Your task to perform on an android device: toggle pop-ups in chrome Image 0: 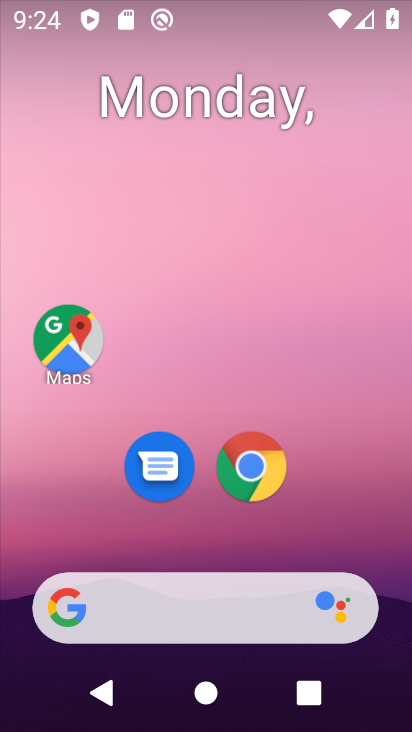
Step 0: click (258, 456)
Your task to perform on an android device: toggle pop-ups in chrome Image 1: 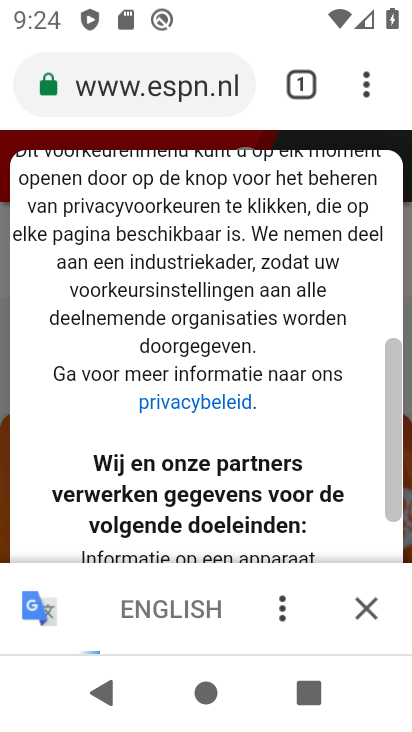
Step 1: click (360, 600)
Your task to perform on an android device: toggle pop-ups in chrome Image 2: 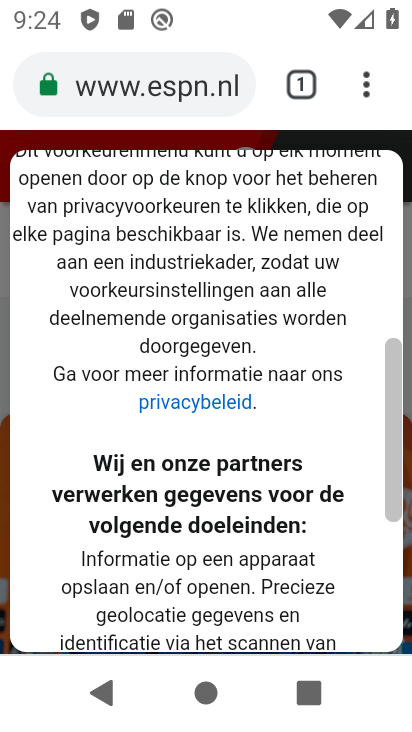
Step 2: drag from (358, 83) to (137, 514)
Your task to perform on an android device: toggle pop-ups in chrome Image 3: 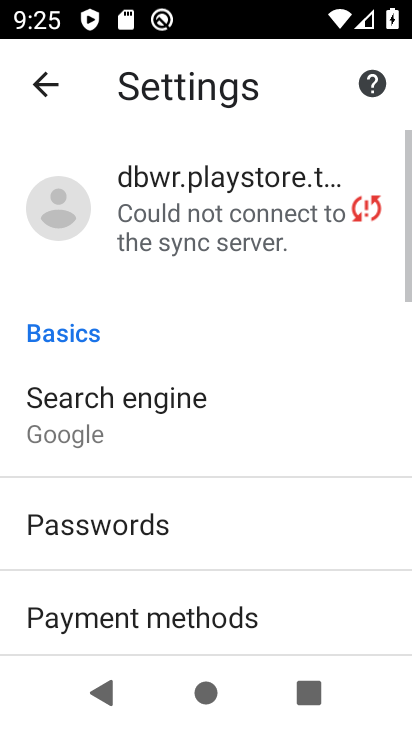
Step 3: drag from (274, 540) to (265, 220)
Your task to perform on an android device: toggle pop-ups in chrome Image 4: 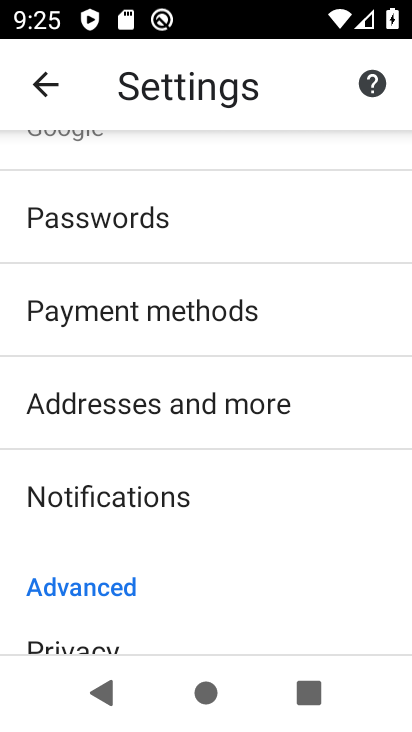
Step 4: drag from (302, 560) to (309, 326)
Your task to perform on an android device: toggle pop-ups in chrome Image 5: 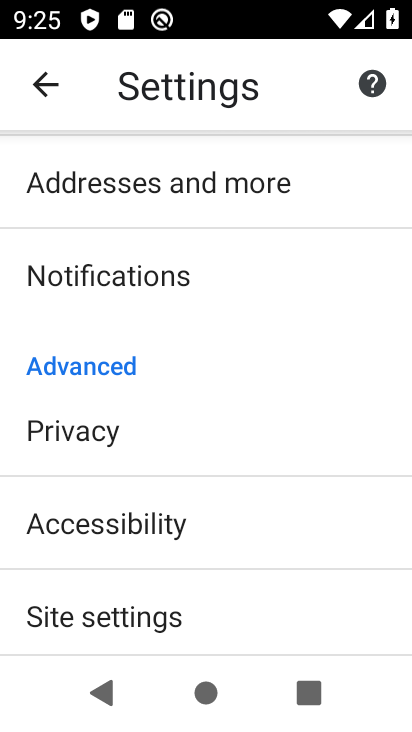
Step 5: drag from (234, 591) to (242, 395)
Your task to perform on an android device: toggle pop-ups in chrome Image 6: 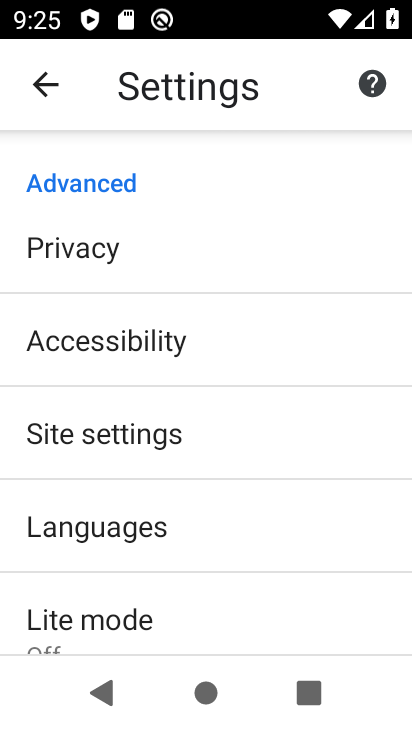
Step 6: click (156, 444)
Your task to perform on an android device: toggle pop-ups in chrome Image 7: 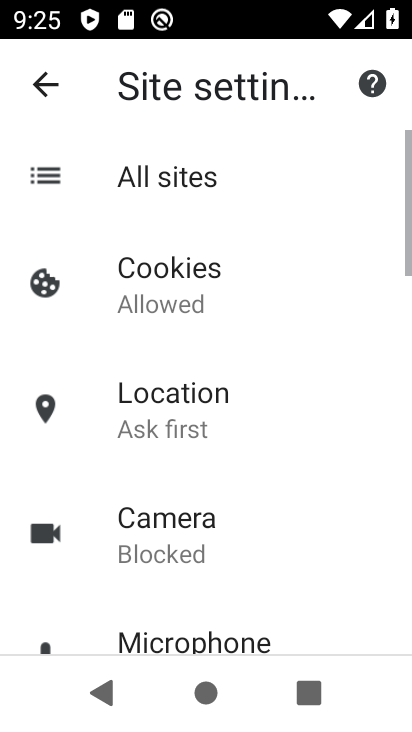
Step 7: drag from (240, 572) to (251, 215)
Your task to perform on an android device: toggle pop-ups in chrome Image 8: 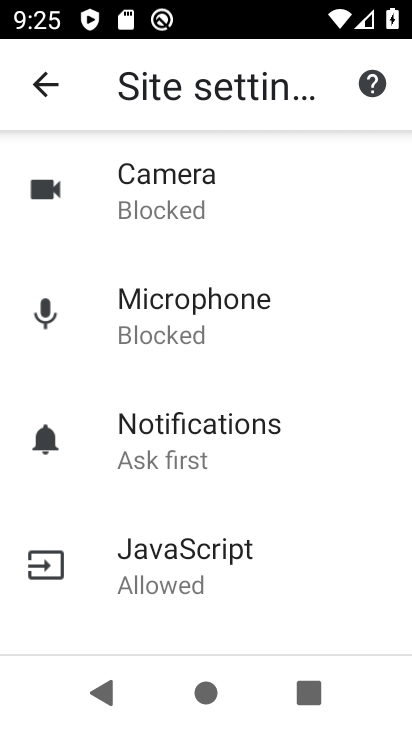
Step 8: drag from (238, 556) to (254, 210)
Your task to perform on an android device: toggle pop-ups in chrome Image 9: 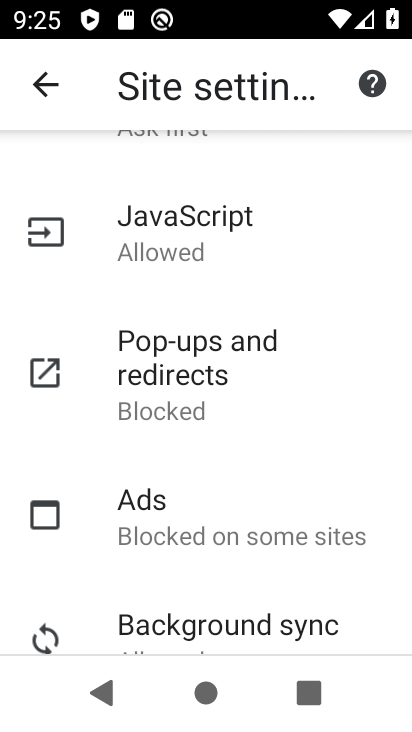
Step 9: click (161, 377)
Your task to perform on an android device: toggle pop-ups in chrome Image 10: 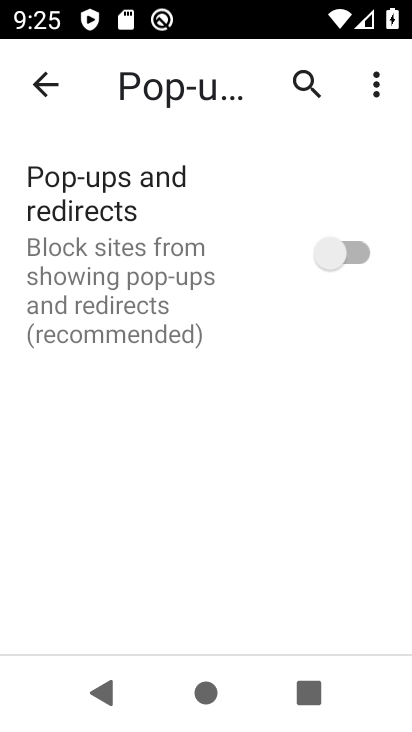
Step 10: click (360, 243)
Your task to perform on an android device: toggle pop-ups in chrome Image 11: 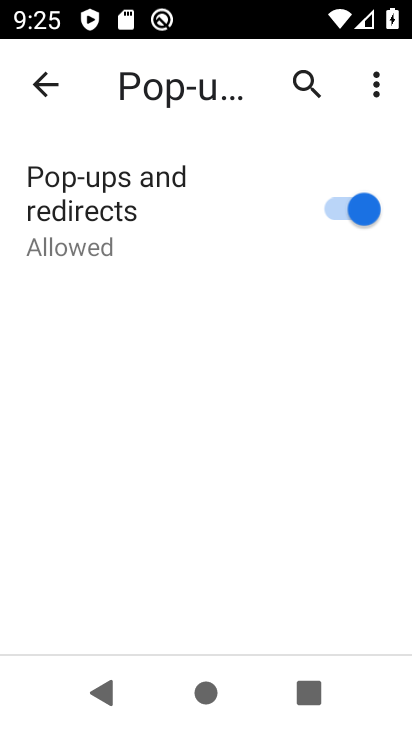
Step 11: task complete